Your task to perform on an android device: toggle location history Image 0: 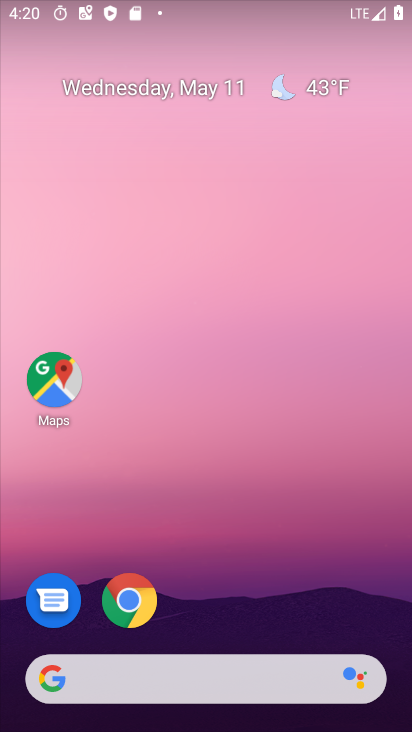
Step 0: click (54, 378)
Your task to perform on an android device: toggle location history Image 1: 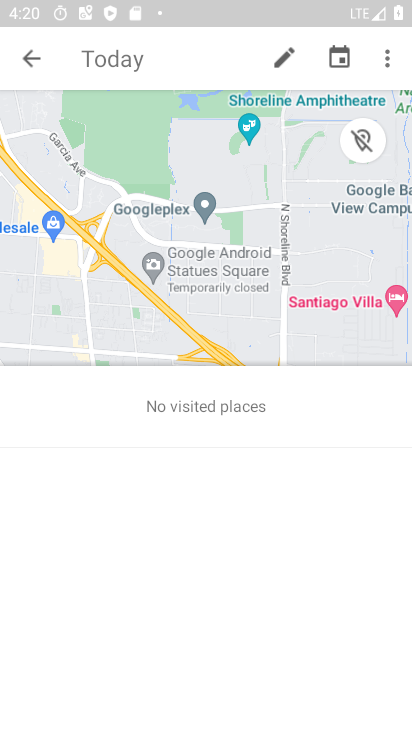
Step 1: click (387, 58)
Your task to perform on an android device: toggle location history Image 2: 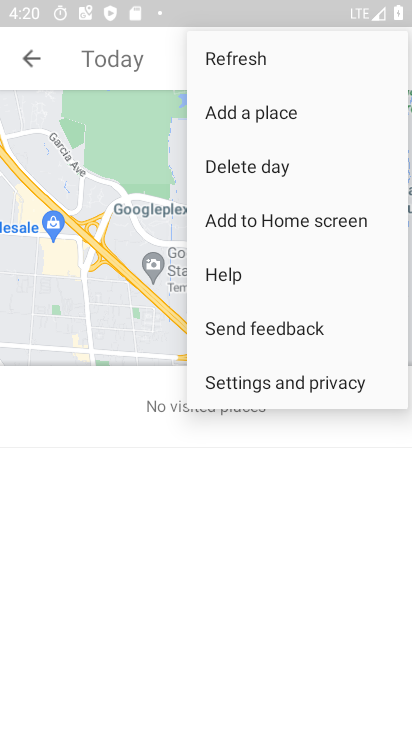
Step 2: click (263, 379)
Your task to perform on an android device: toggle location history Image 3: 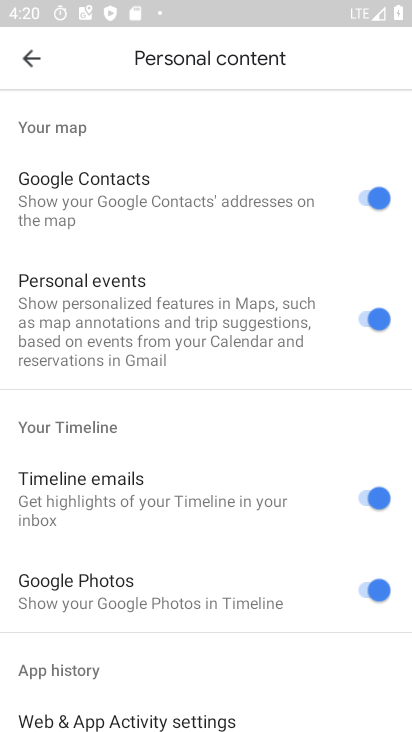
Step 3: drag from (129, 630) to (135, 251)
Your task to perform on an android device: toggle location history Image 4: 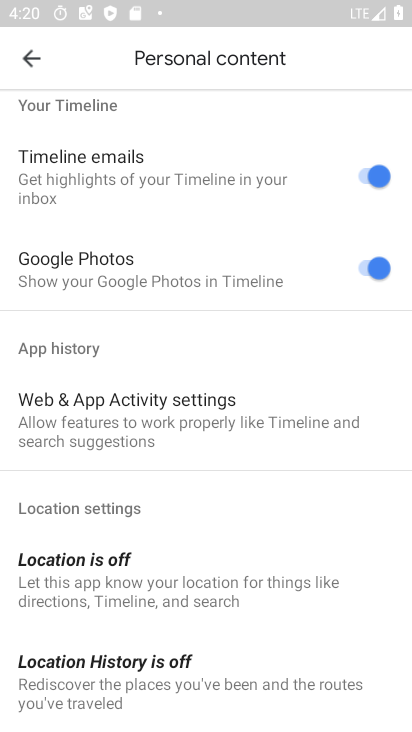
Step 4: drag from (150, 514) to (149, 266)
Your task to perform on an android device: toggle location history Image 5: 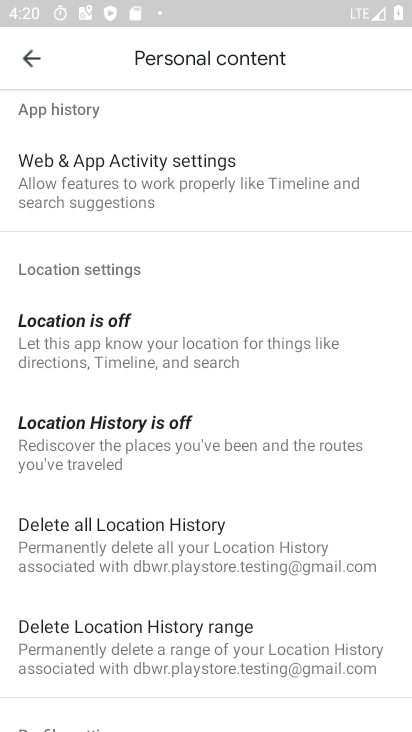
Step 5: click (89, 440)
Your task to perform on an android device: toggle location history Image 6: 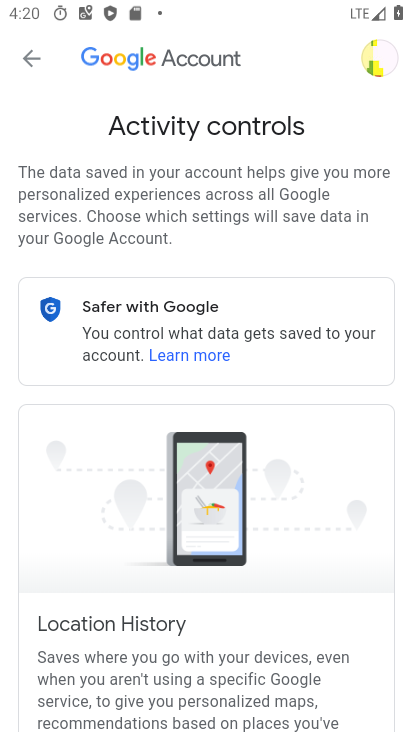
Step 6: drag from (262, 544) to (244, 110)
Your task to perform on an android device: toggle location history Image 7: 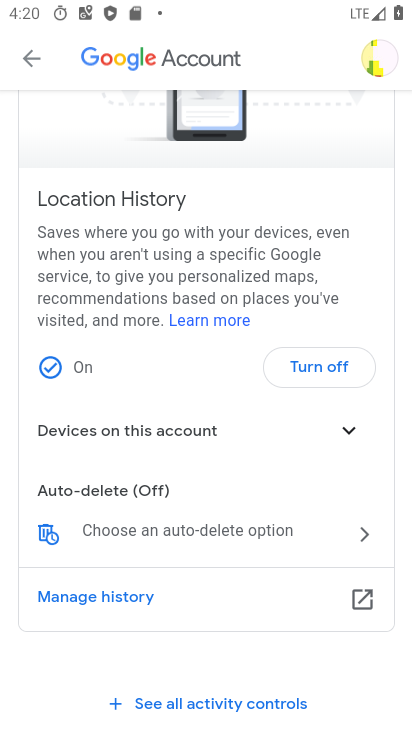
Step 7: click (318, 370)
Your task to perform on an android device: toggle location history Image 8: 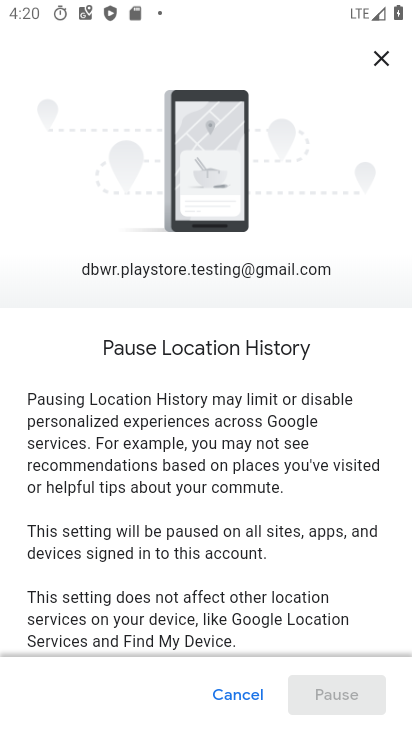
Step 8: drag from (167, 528) to (205, 159)
Your task to perform on an android device: toggle location history Image 9: 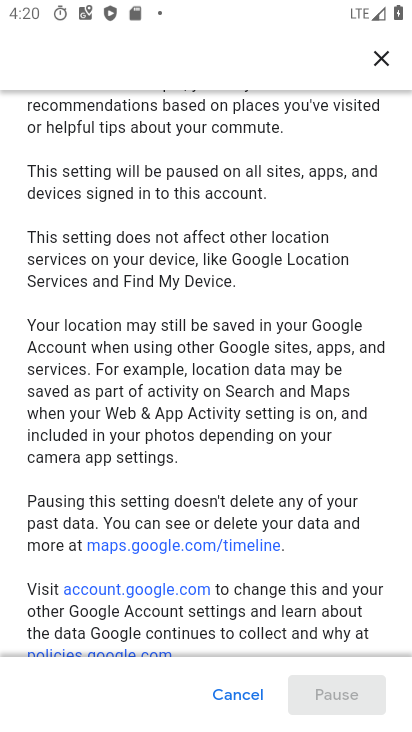
Step 9: drag from (224, 529) to (227, 133)
Your task to perform on an android device: toggle location history Image 10: 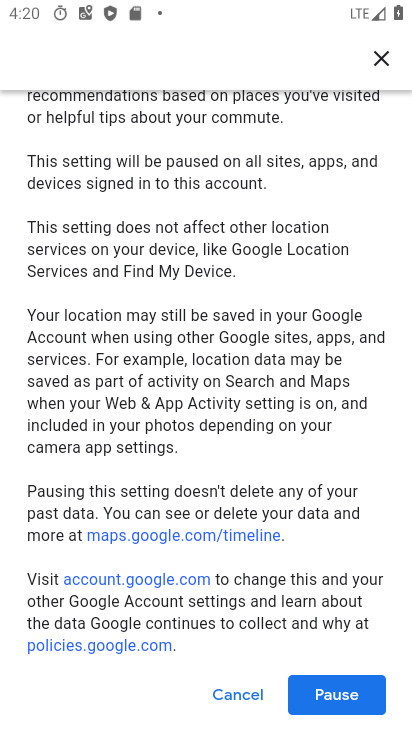
Step 10: click (335, 698)
Your task to perform on an android device: toggle location history Image 11: 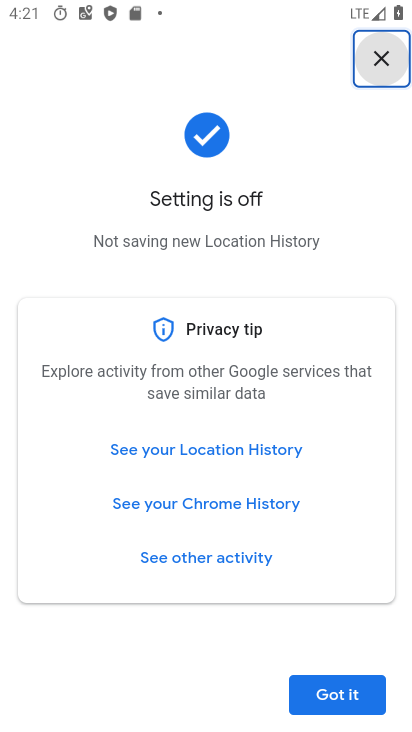
Step 11: click (325, 702)
Your task to perform on an android device: toggle location history Image 12: 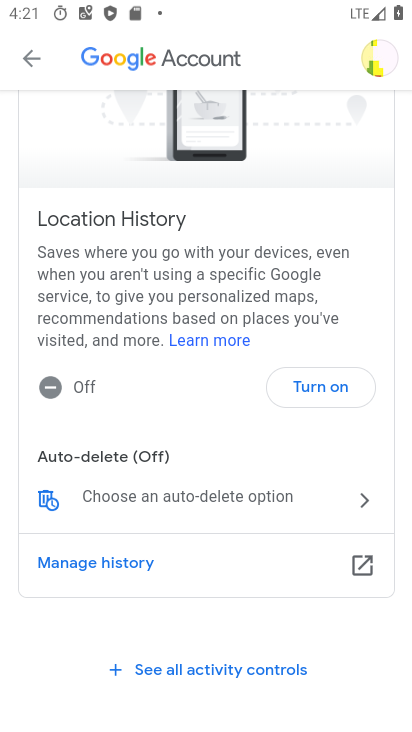
Step 12: task complete